Your task to perform on an android device: change the clock display to analog Image 0: 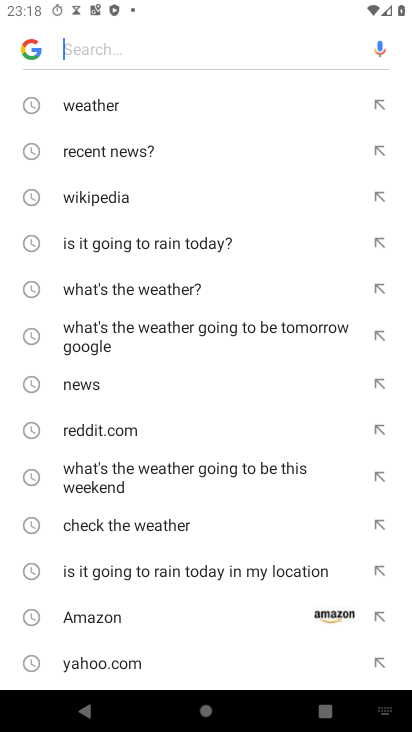
Step 0: press home button
Your task to perform on an android device: change the clock display to analog Image 1: 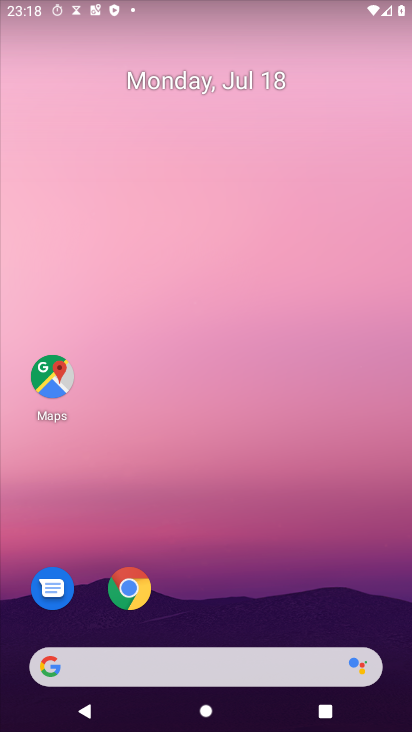
Step 1: drag from (241, 657) to (371, 162)
Your task to perform on an android device: change the clock display to analog Image 2: 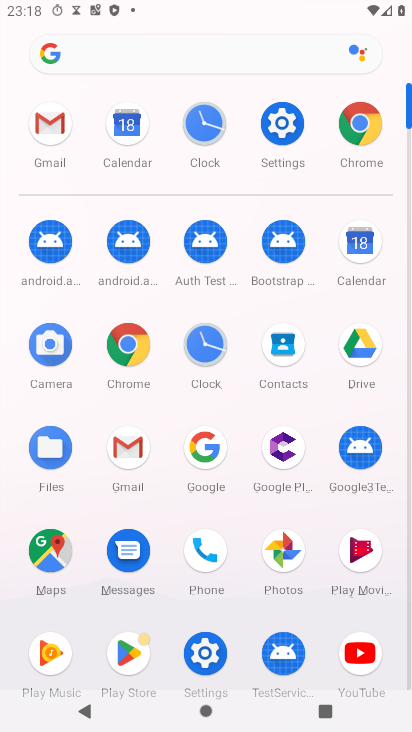
Step 2: click (203, 138)
Your task to perform on an android device: change the clock display to analog Image 3: 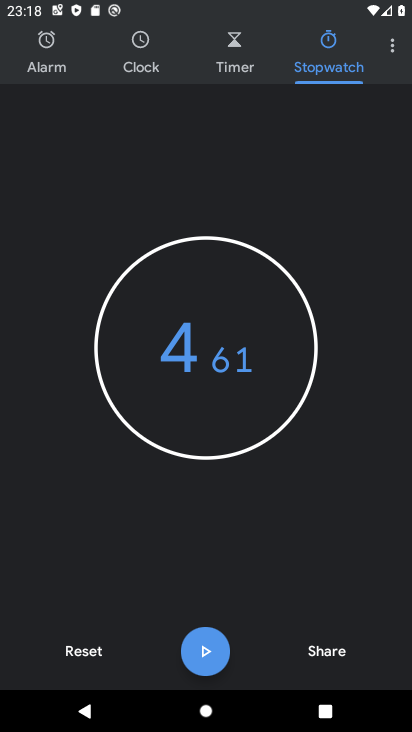
Step 3: click (394, 47)
Your task to perform on an android device: change the clock display to analog Image 4: 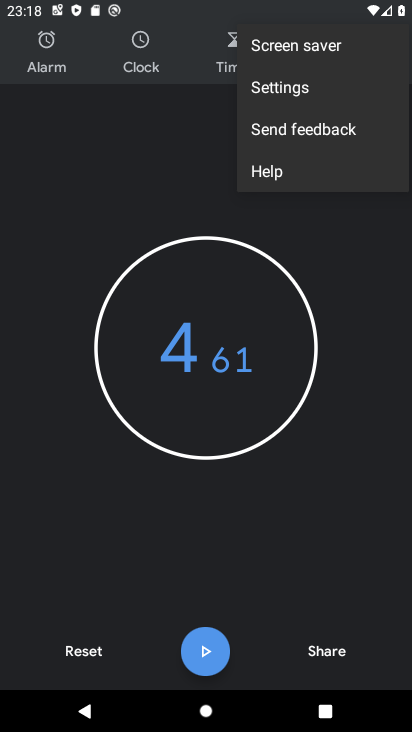
Step 4: click (281, 96)
Your task to perform on an android device: change the clock display to analog Image 5: 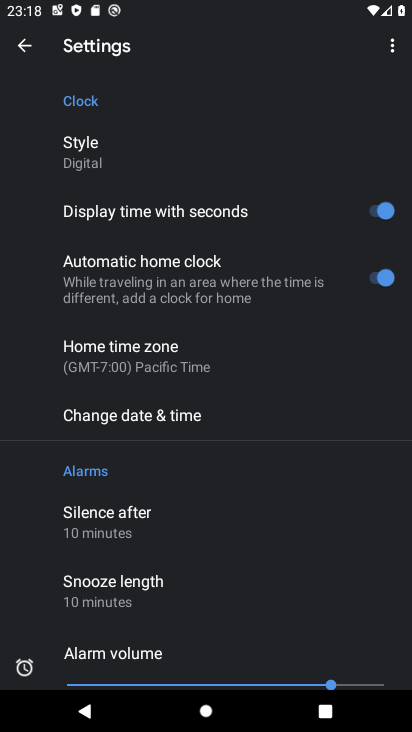
Step 5: click (110, 174)
Your task to perform on an android device: change the clock display to analog Image 6: 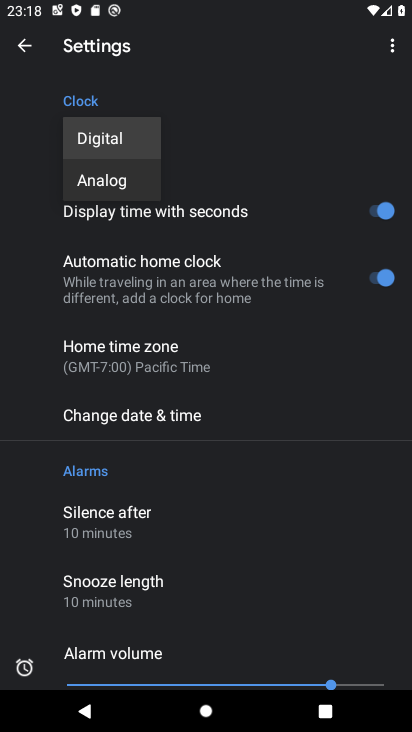
Step 6: click (115, 183)
Your task to perform on an android device: change the clock display to analog Image 7: 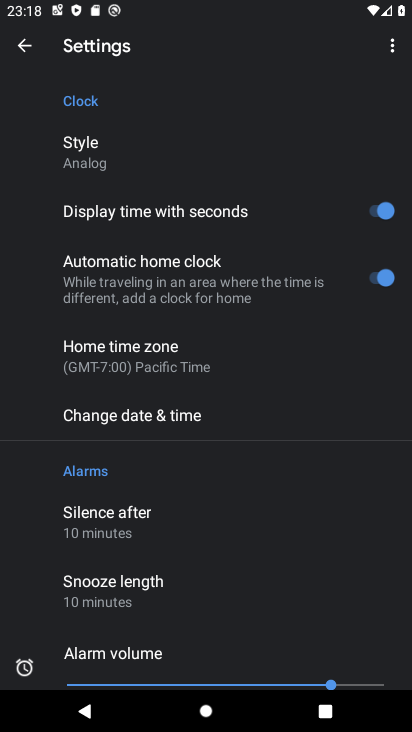
Step 7: task complete